Your task to perform on an android device: Go to Amazon Image 0: 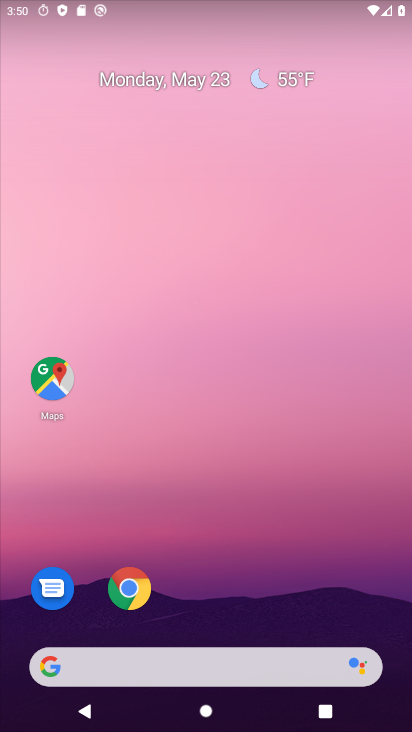
Step 0: drag from (188, 567) to (198, 55)
Your task to perform on an android device: Go to Amazon Image 1: 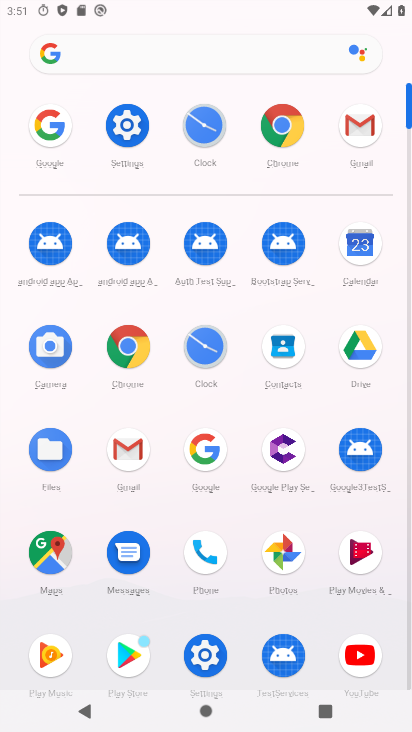
Step 1: click (279, 118)
Your task to perform on an android device: Go to Amazon Image 2: 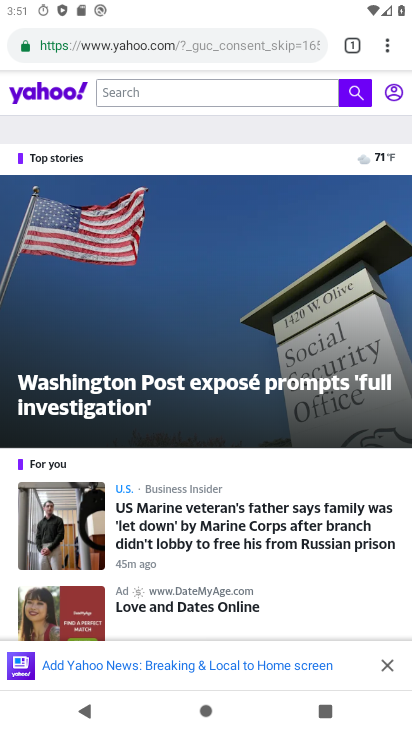
Step 2: press back button
Your task to perform on an android device: Go to Amazon Image 3: 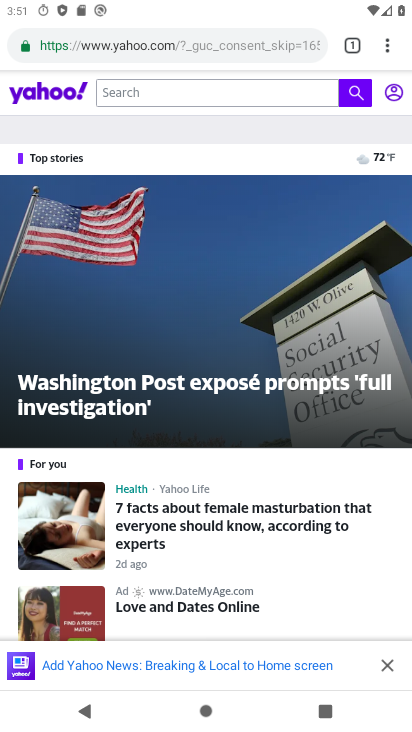
Step 3: press back button
Your task to perform on an android device: Go to Amazon Image 4: 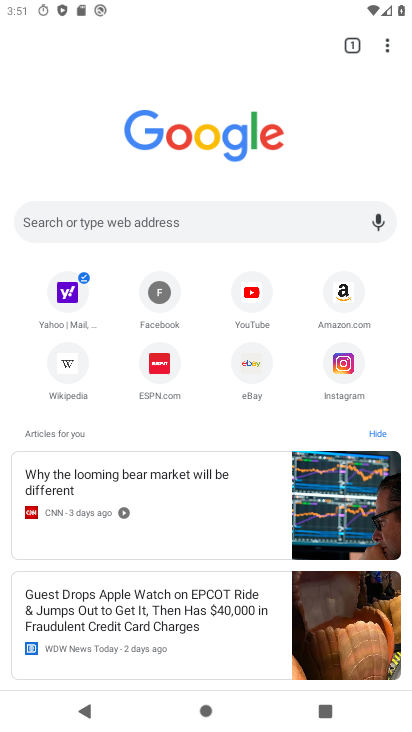
Step 4: click (344, 290)
Your task to perform on an android device: Go to Amazon Image 5: 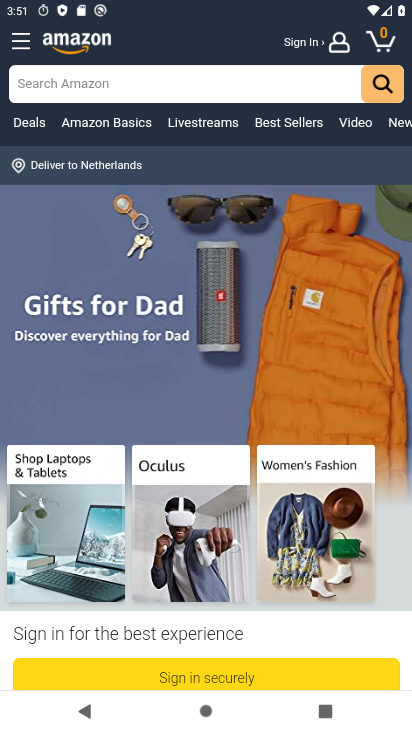
Step 5: task complete